Your task to perform on an android device: turn on priority inbox in the gmail app Image 0: 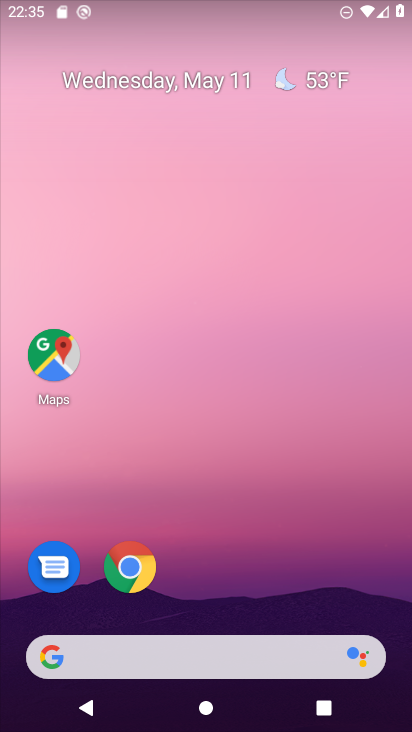
Step 0: drag from (146, 668) to (160, 111)
Your task to perform on an android device: turn on priority inbox in the gmail app Image 1: 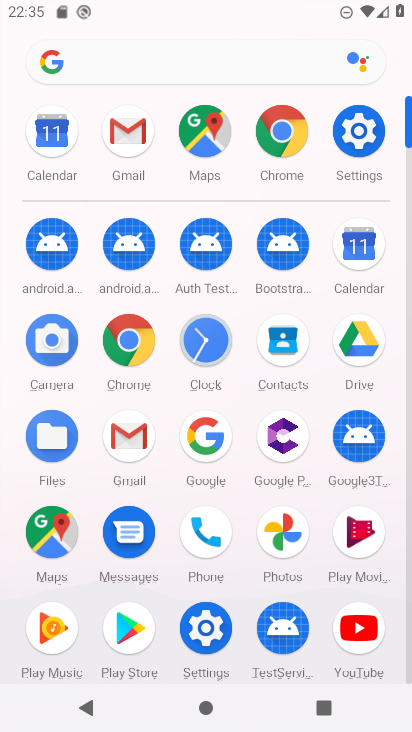
Step 1: click (126, 141)
Your task to perform on an android device: turn on priority inbox in the gmail app Image 2: 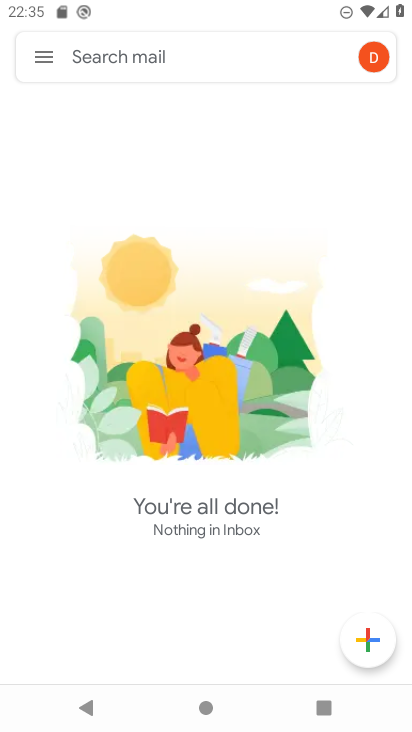
Step 2: click (37, 49)
Your task to perform on an android device: turn on priority inbox in the gmail app Image 3: 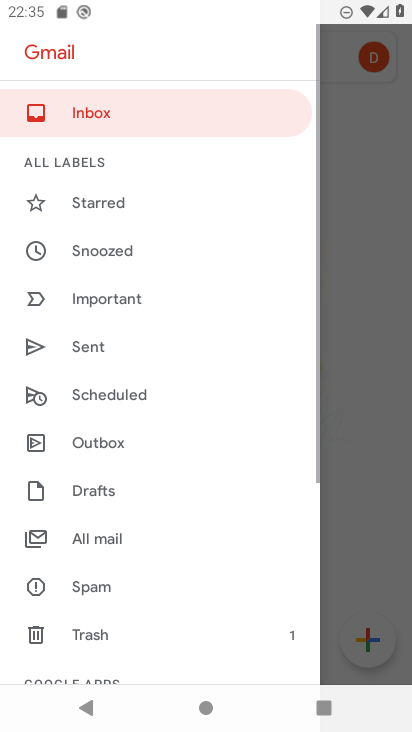
Step 3: drag from (147, 666) to (99, 86)
Your task to perform on an android device: turn on priority inbox in the gmail app Image 4: 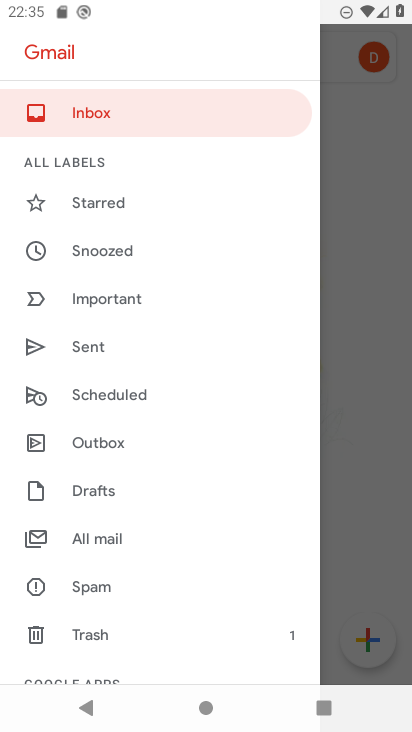
Step 4: drag from (109, 662) to (131, 46)
Your task to perform on an android device: turn on priority inbox in the gmail app Image 5: 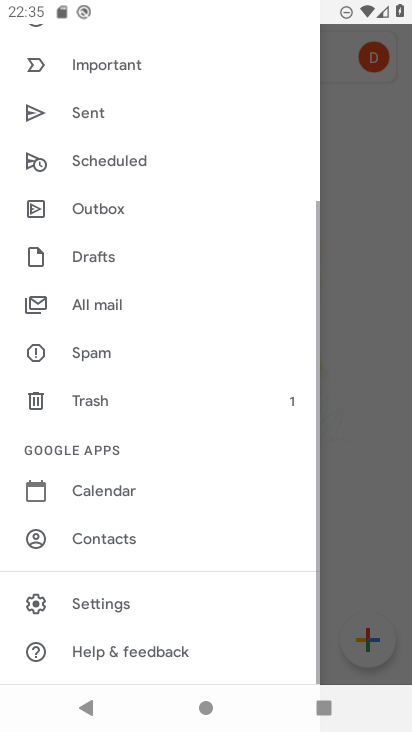
Step 5: click (122, 600)
Your task to perform on an android device: turn on priority inbox in the gmail app Image 6: 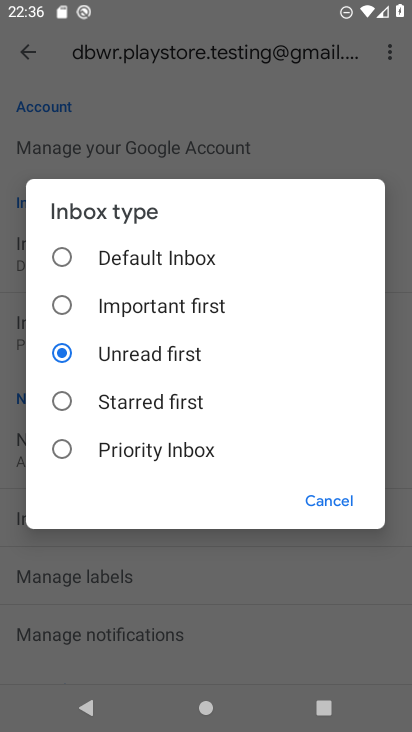
Step 6: click (155, 448)
Your task to perform on an android device: turn on priority inbox in the gmail app Image 7: 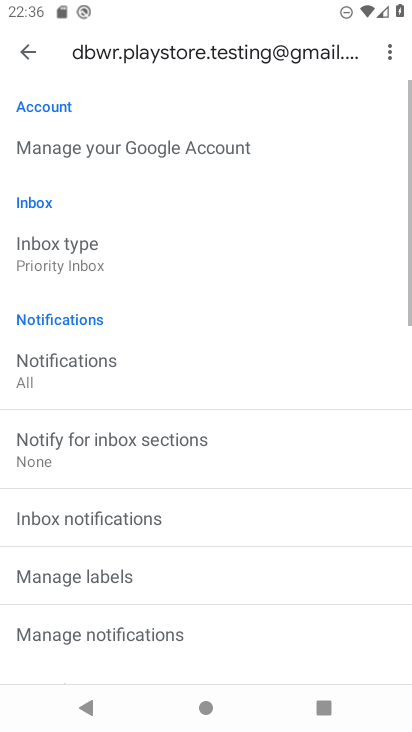
Step 7: task complete